Your task to perform on an android device: Go to eBay Image 0: 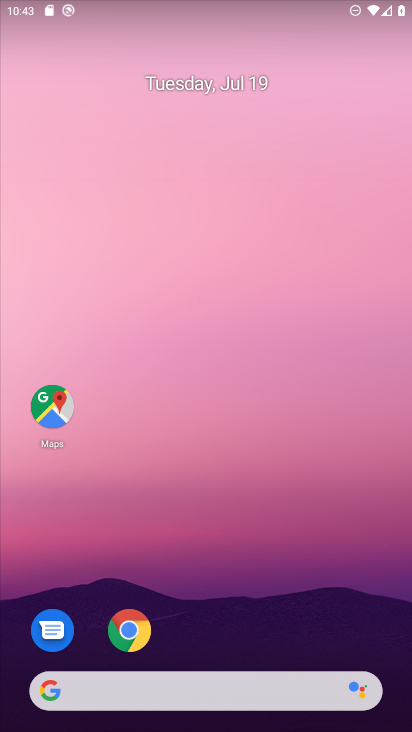
Step 0: click (148, 638)
Your task to perform on an android device: Go to eBay Image 1: 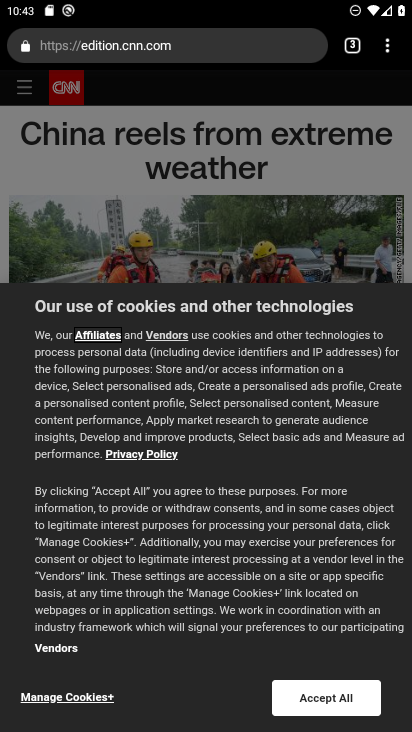
Step 1: click (349, 43)
Your task to perform on an android device: Go to eBay Image 2: 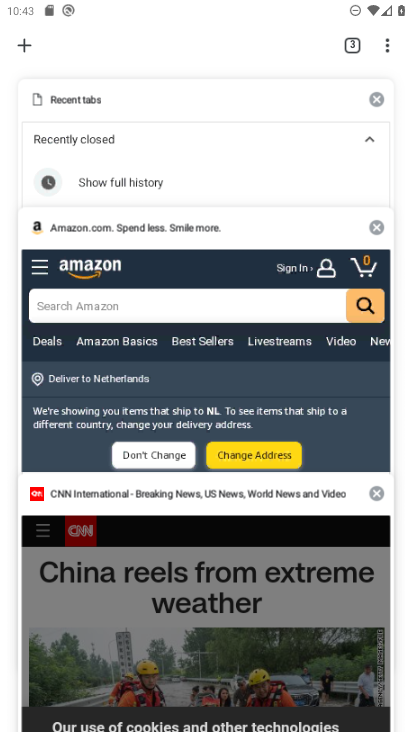
Step 2: click (27, 39)
Your task to perform on an android device: Go to eBay Image 3: 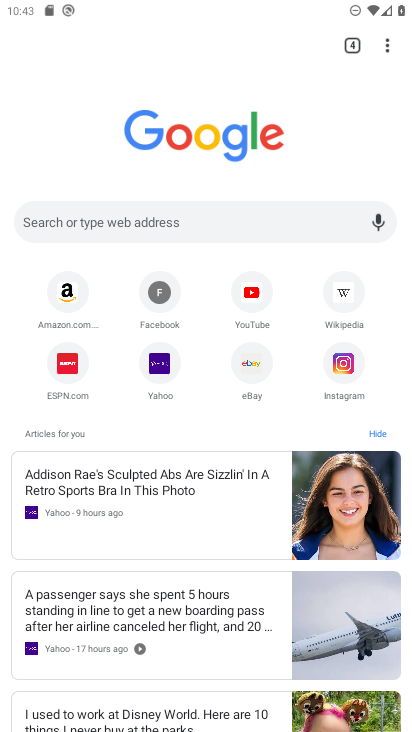
Step 3: click (253, 376)
Your task to perform on an android device: Go to eBay Image 4: 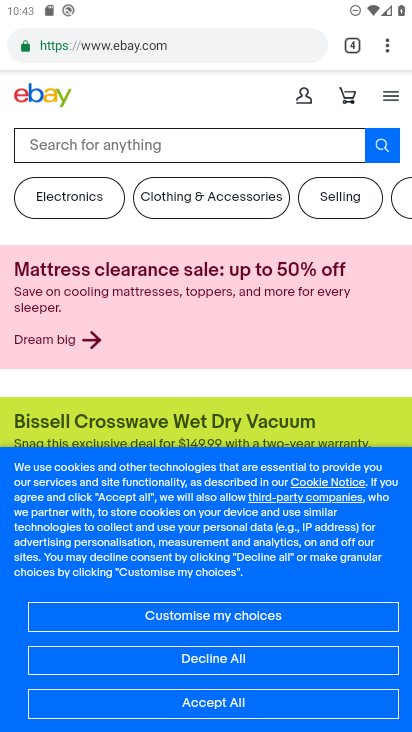
Step 4: task complete